Your task to perform on an android device: allow notifications from all sites in the chrome app Image 0: 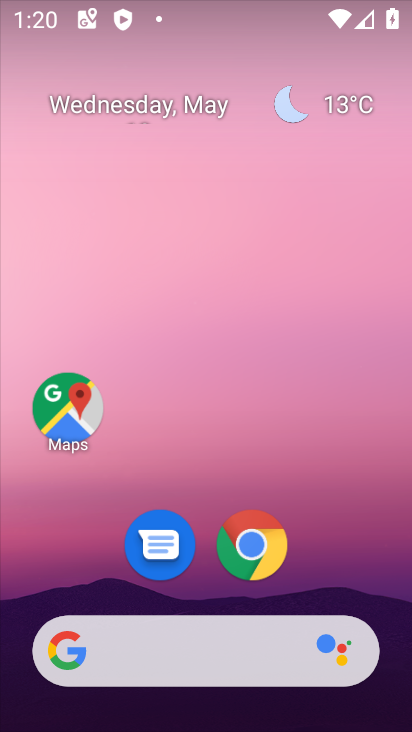
Step 0: click (259, 559)
Your task to perform on an android device: allow notifications from all sites in the chrome app Image 1: 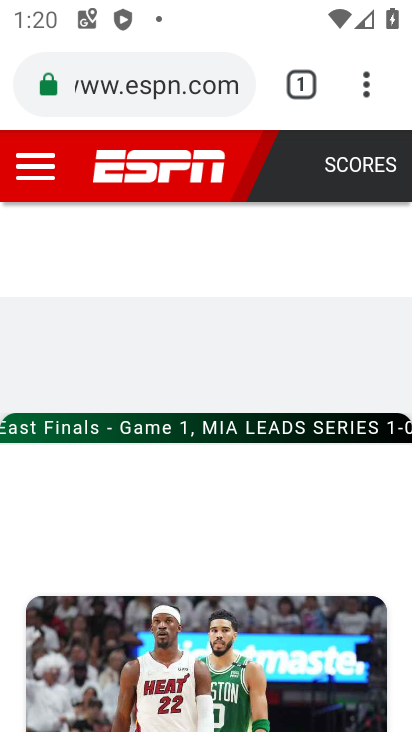
Step 1: click (368, 85)
Your task to perform on an android device: allow notifications from all sites in the chrome app Image 2: 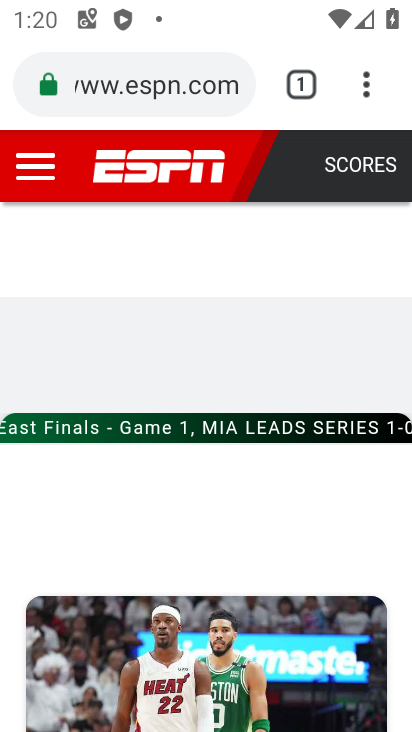
Step 2: click (369, 83)
Your task to perform on an android device: allow notifications from all sites in the chrome app Image 3: 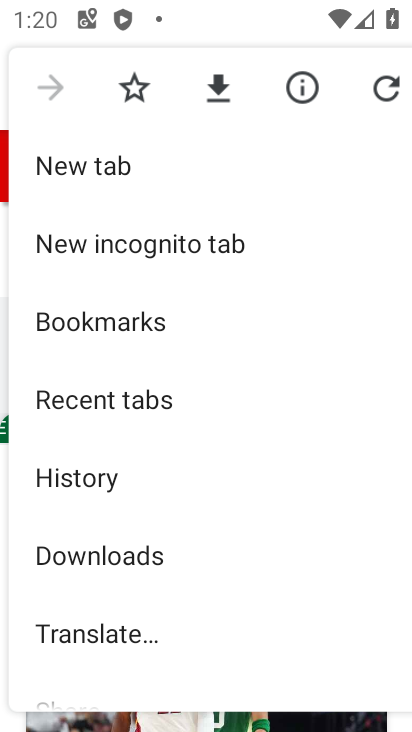
Step 3: drag from (156, 583) to (128, 218)
Your task to perform on an android device: allow notifications from all sites in the chrome app Image 4: 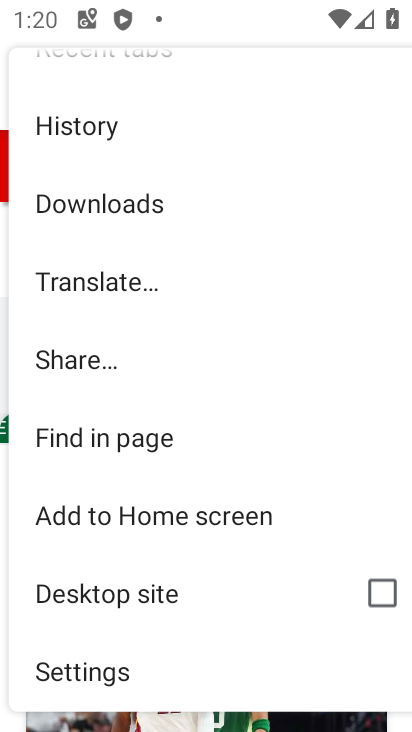
Step 4: click (103, 651)
Your task to perform on an android device: allow notifications from all sites in the chrome app Image 5: 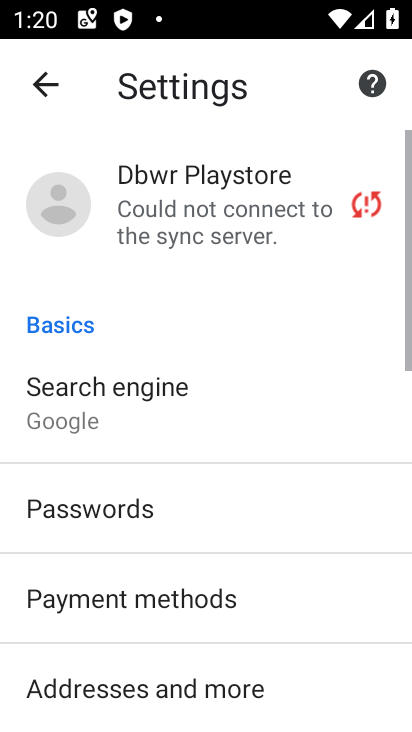
Step 5: drag from (113, 577) to (134, 222)
Your task to perform on an android device: allow notifications from all sites in the chrome app Image 6: 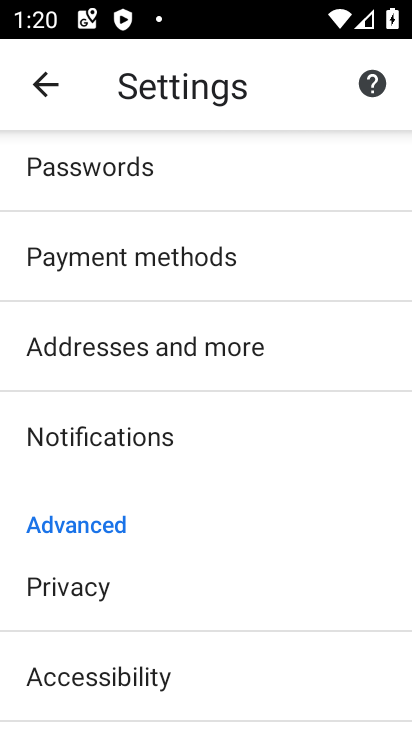
Step 6: click (139, 435)
Your task to perform on an android device: allow notifications from all sites in the chrome app Image 7: 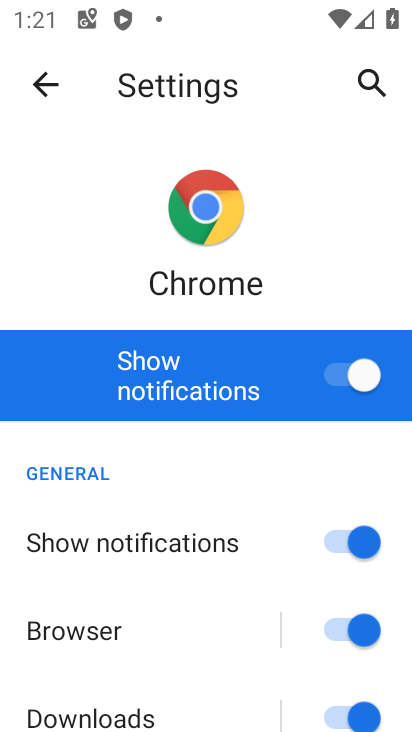
Step 7: task complete